Your task to perform on an android device: change the clock style Image 0: 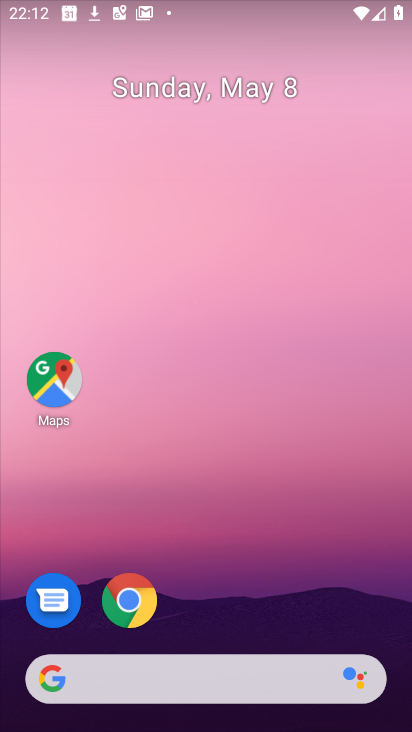
Step 0: drag from (256, 661) to (359, 213)
Your task to perform on an android device: change the clock style Image 1: 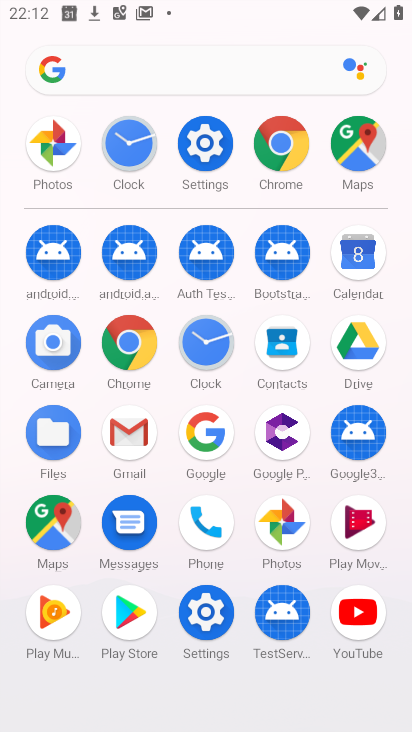
Step 1: click (135, 156)
Your task to perform on an android device: change the clock style Image 2: 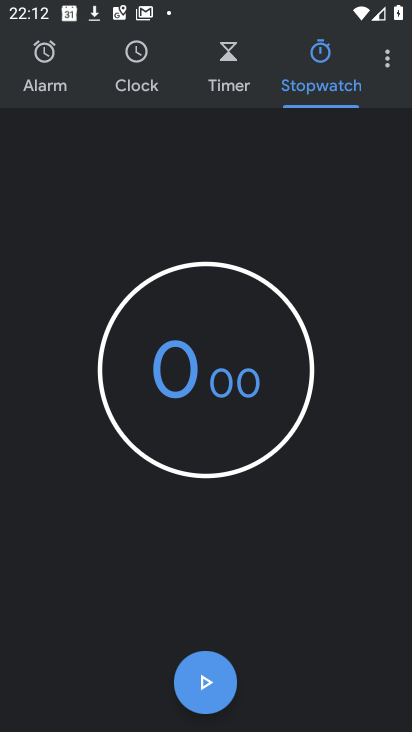
Step 2: click (384, 66)
Your task to perform on an android device: change the clock style Image 3: 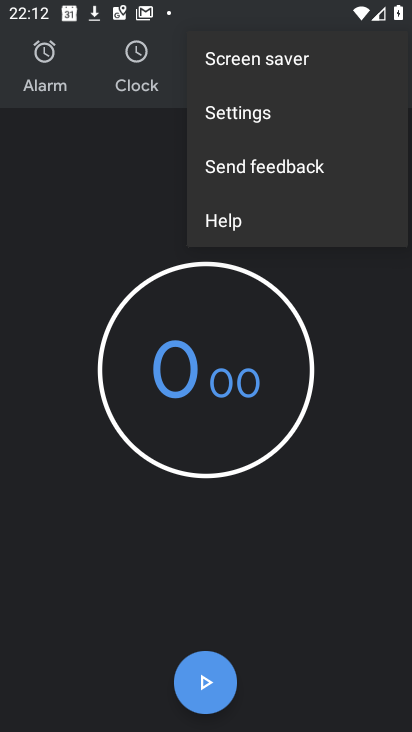
Step 3: click (297, 114)
Your task to perform on an android device: change the clock style Image 4: 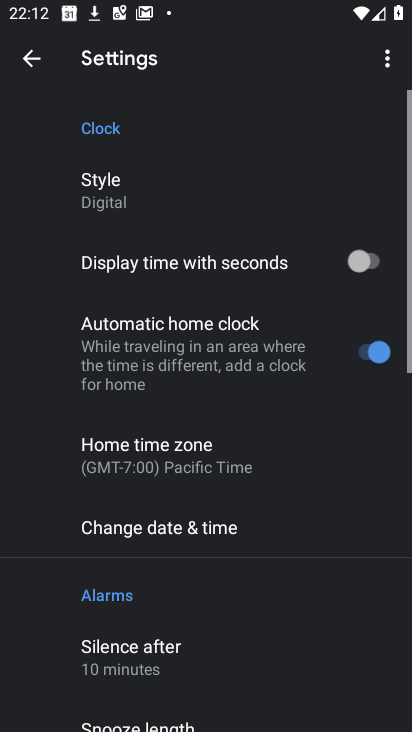
Step 4: click (169, 184)
Your task to perform on an android device: change the clock style Image 5: 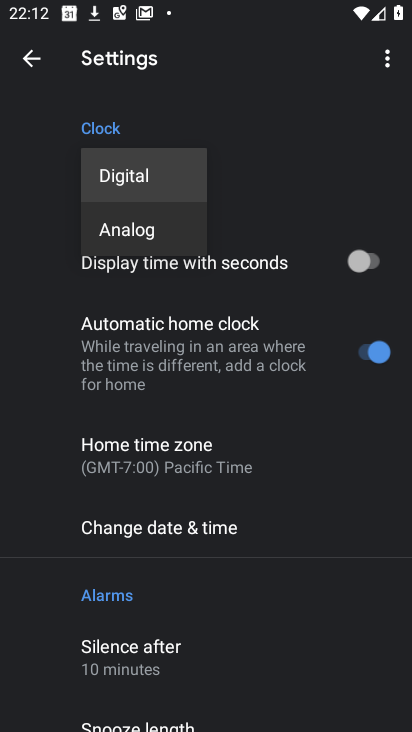
Step 5: click (161, 233)
Your task to perform on an android device: change the clock style Image 6: 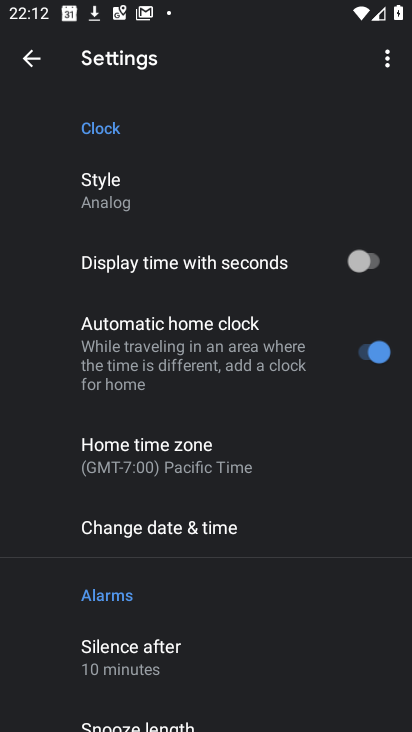
Step 6: task complete